Your task to perform on an android device: turn on translation in the chrome app Image 0: 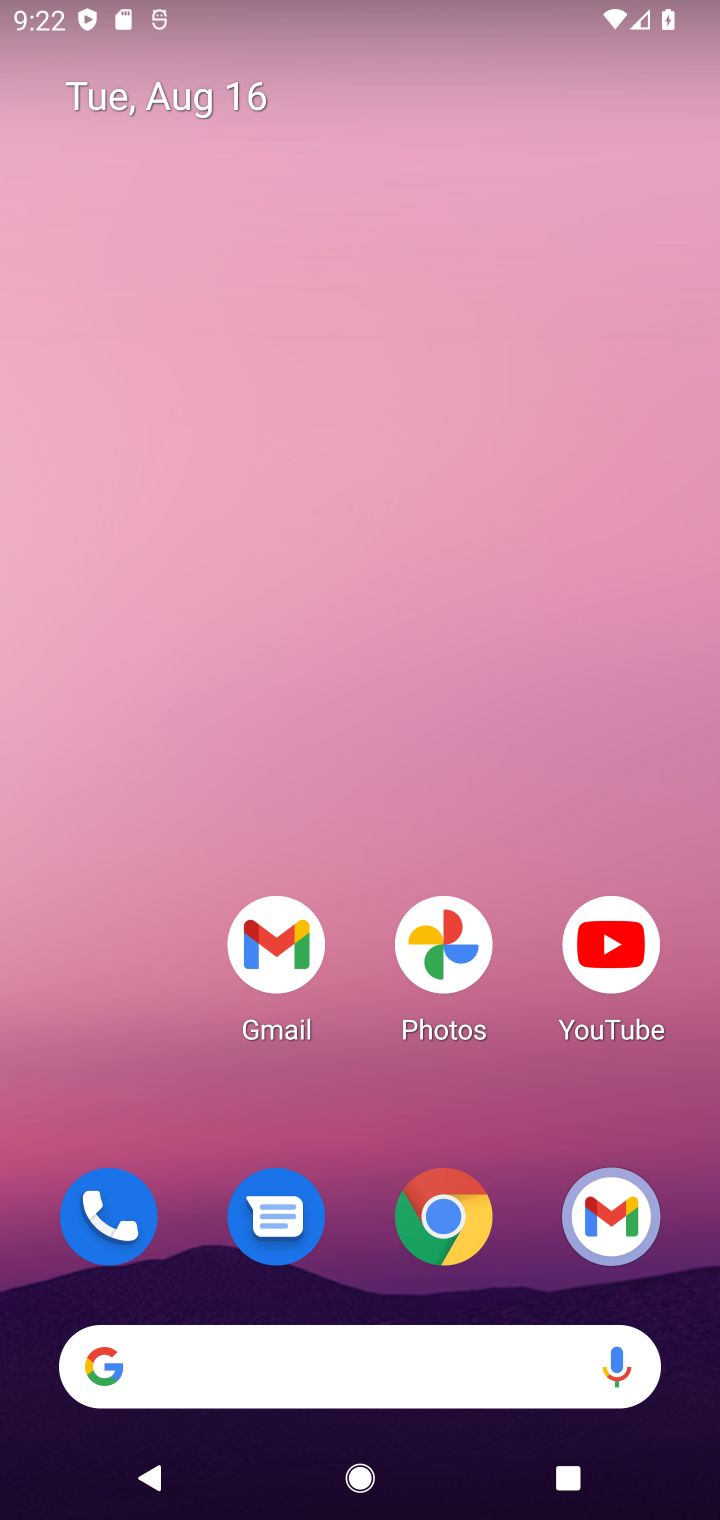
Step 0: click (446, 1219)
Your task to perform on an android device: turn on translation in the chrome app Image 1: 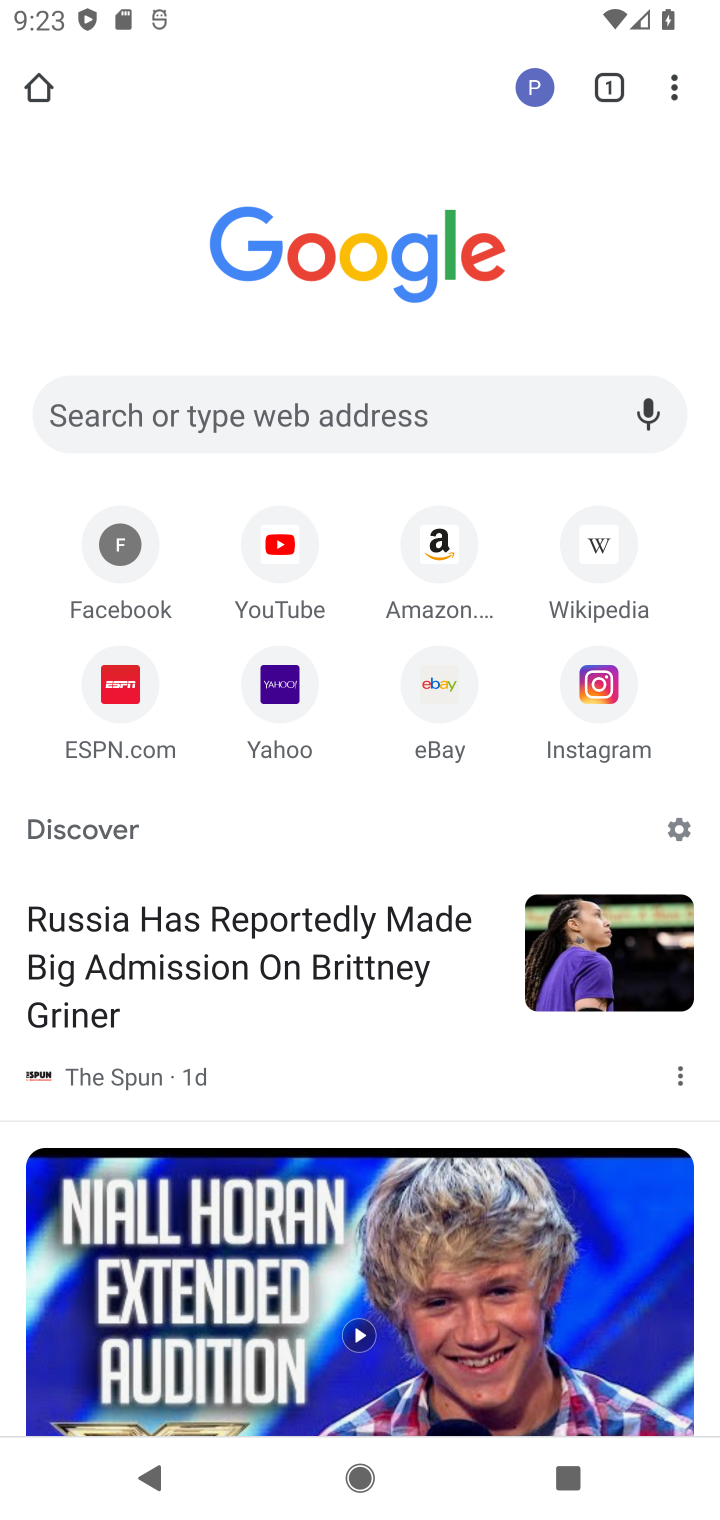
Step 1: drag from (674, 88) to (444, 765)
Your task to perform on an android device: turn on translation in the chrome app Image 2: 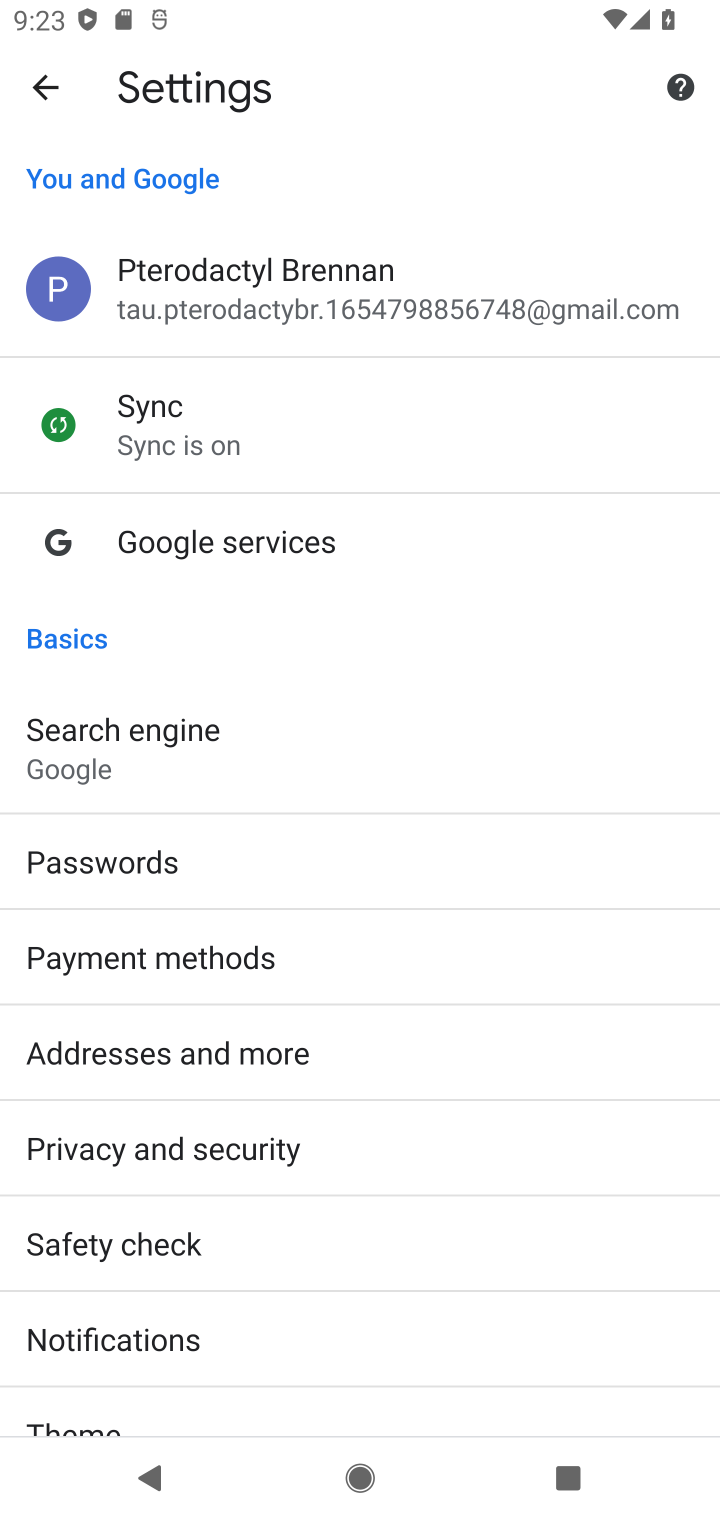
Step 2: drag from (157, 1355) to (211, 647)
Your task to perform on an android device: turn on translation in the chrome app Image 3: 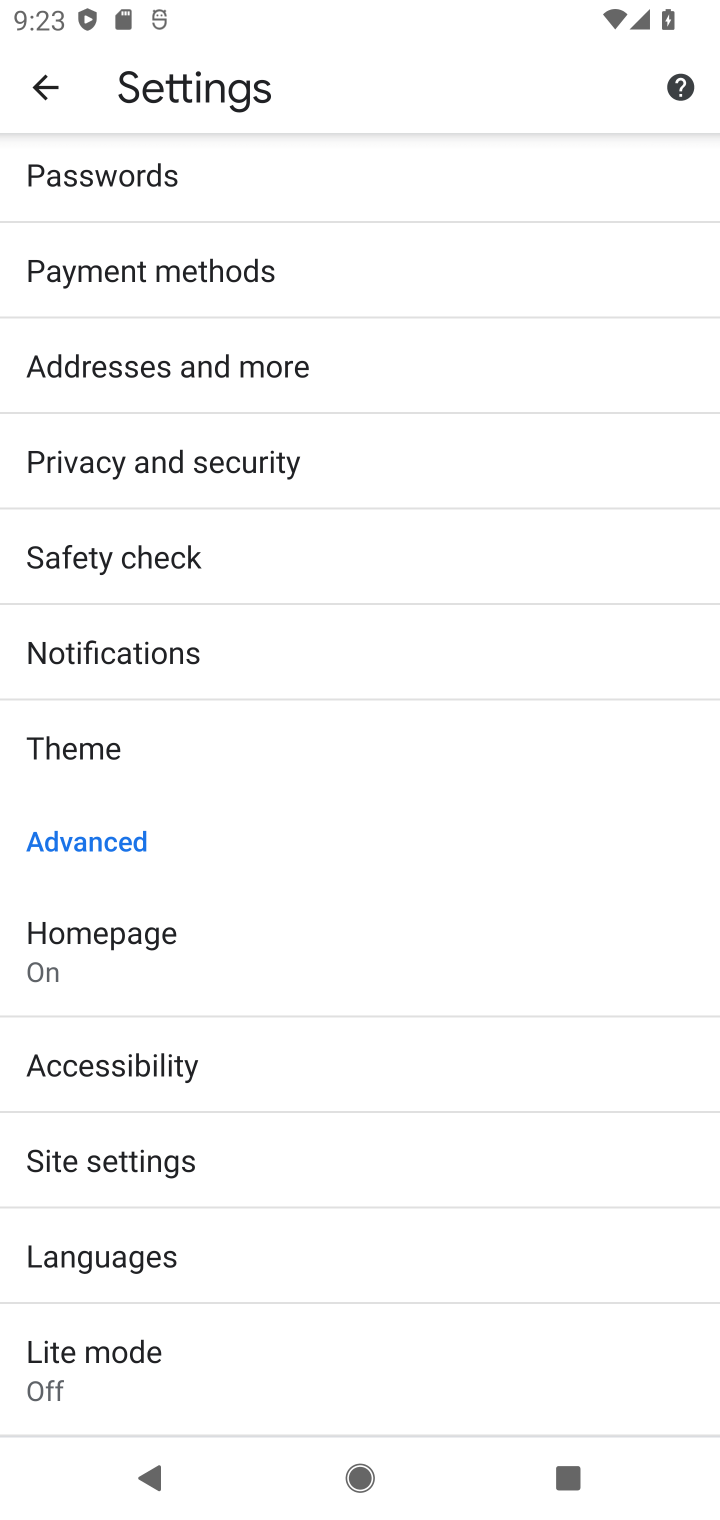
Step 3: click (161, 1250)
Your task to perform on an android device: turn on translation in the chrome app Image 4: 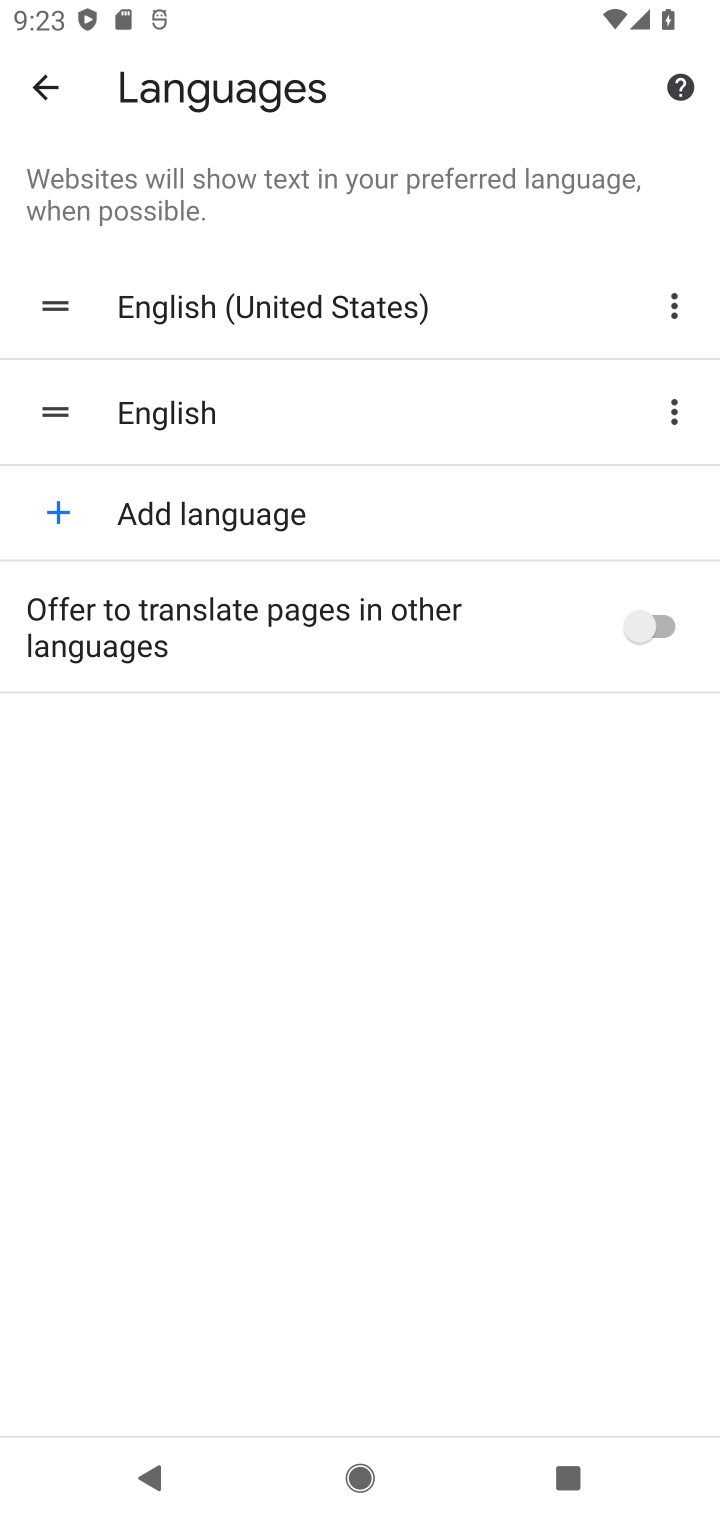
Step 4: click (669, 618)
Your task to perform on an android device: turn on translation in the chrome app Image 5: 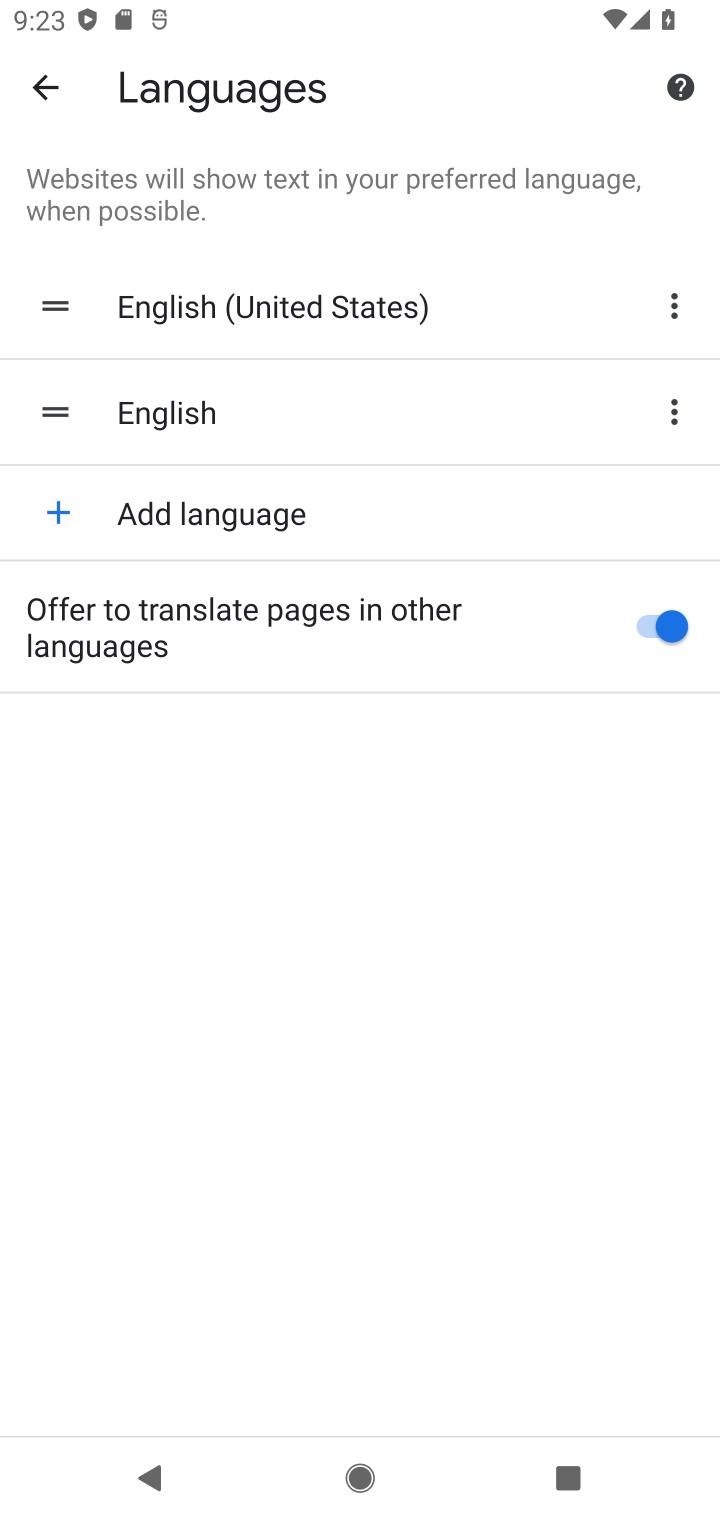
Step 5: task complete